Your task to perform on an android device: turn pop-ups on in chrome Image 0: 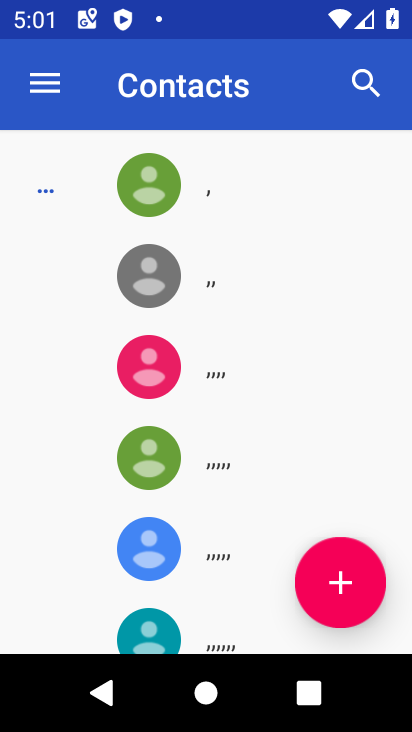
Step 0: press home button
Your task to perform on an android device: turn pop-ups on in chrome Image 1: 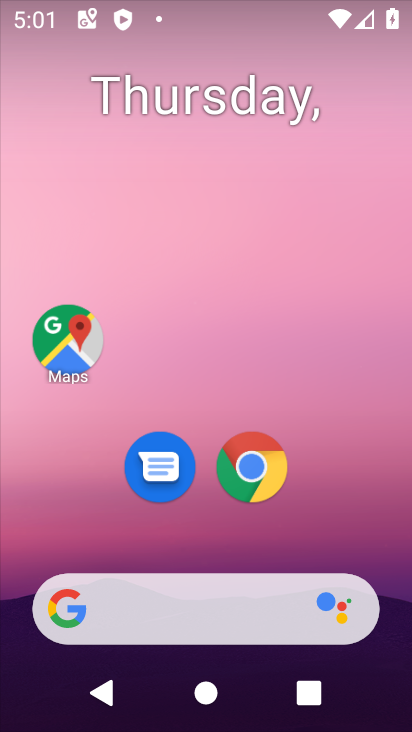
Step 1: drag from (393, 520) to (358, 114)
Your task to perform on an android device: turn pop-ups on in chrome Image 2: 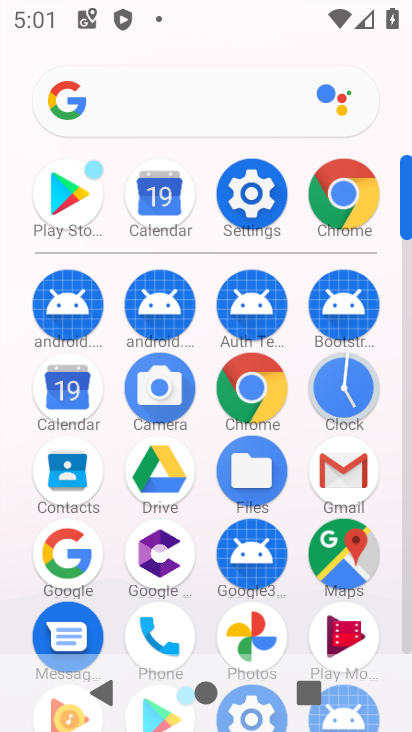
Step 2: click (359, 221)
Your task to perform on an android device: turn pop-ups on in chrome Image 3: 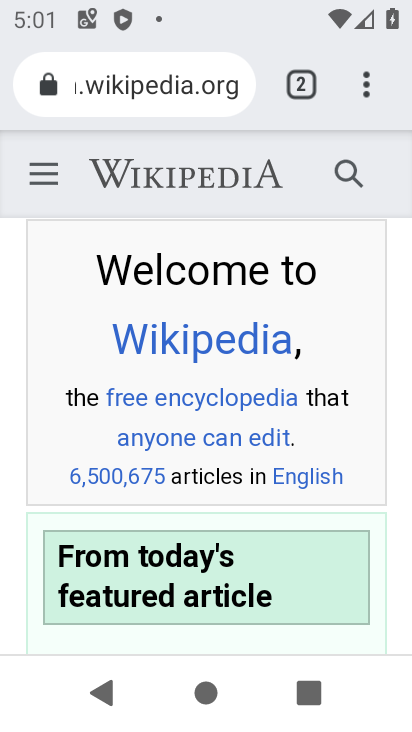
Step 3: click (367, 108)
Your task to perform on an android device: turn pop-ups on in chrome Image 4: 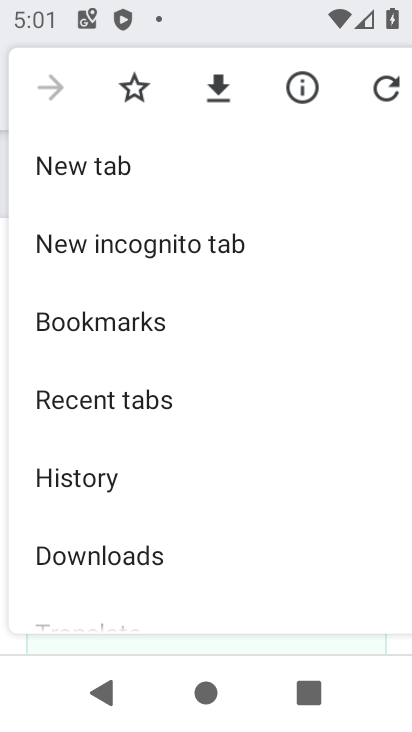
Step 4: drag from (263, 627) to (242, 254)
Your task to perform on an android device: turn pop-ups on in chrome Image 5: 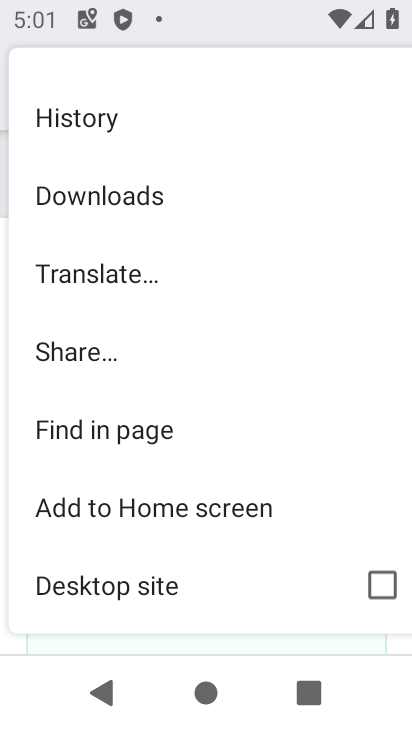
Step 5: drag from (188, 545) to (208, 74)
Your task to perform on an android device: turn pop-ups on in chrome Image 6: 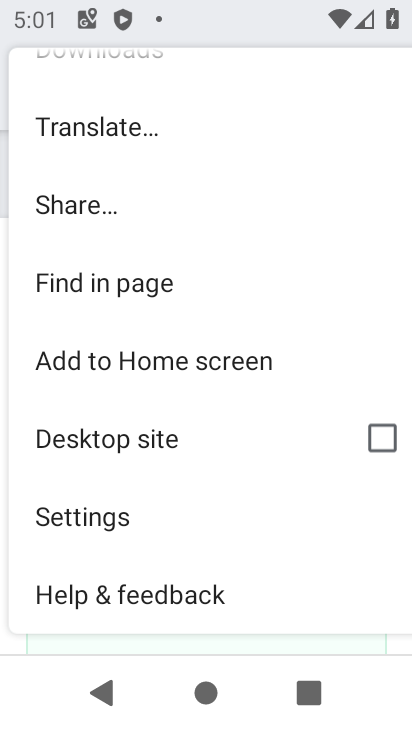
Step 6: click (170, 520)
Your task to perform on an android device: turn pop-ups on in chrome Image 7: 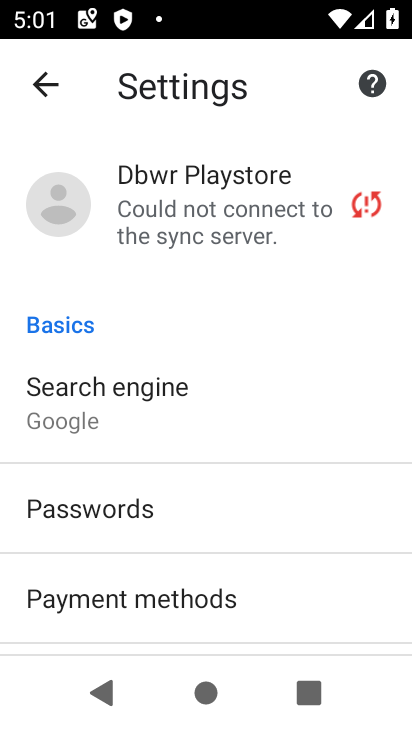
Step 7: drag from (257, 623) to (251, 166)
Your task to perform on an android device: turn pop-ups on in chrome Image 8: 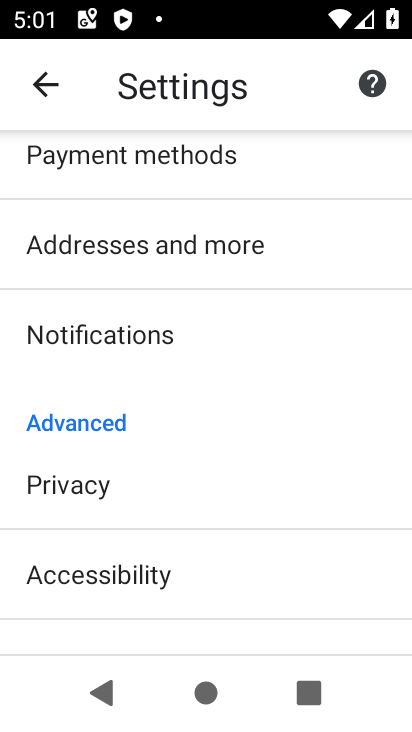
Step 8: drag from (260, 618) to (250, 380)
Your task to perform on an android device: turn pop-ups on in chrome Image 9: 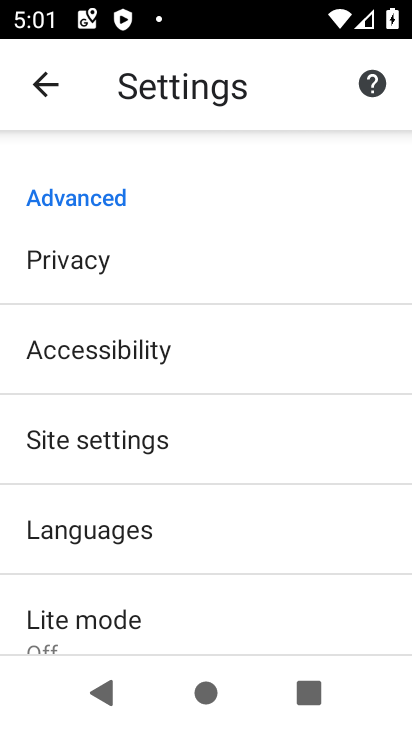
Step 9: click (285, 441)
Your task to perform on an android device: turn pop-ups on in chrome Image 10: 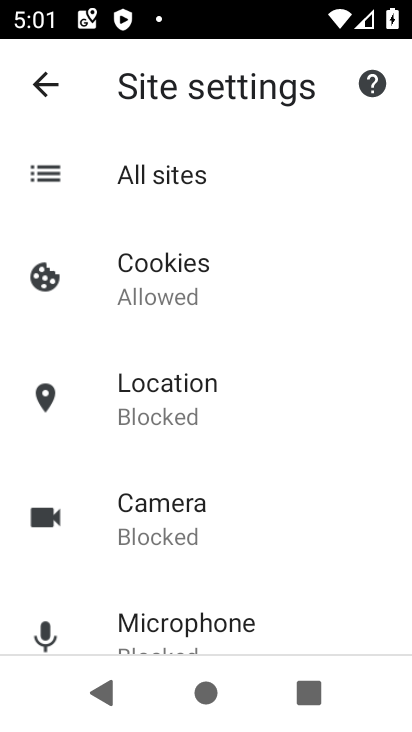
Step 10: drag from (304, 599) to (313, 210)
Your task to perform on an android device: turn pop-ups on in chrome Image 11: 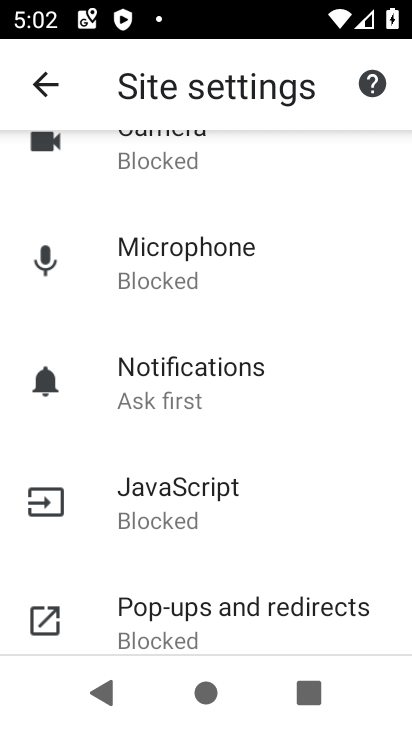
Step 11: click (311, 619)
Your task to perform on an android device: turn pop-ups on in chrome Image 12: 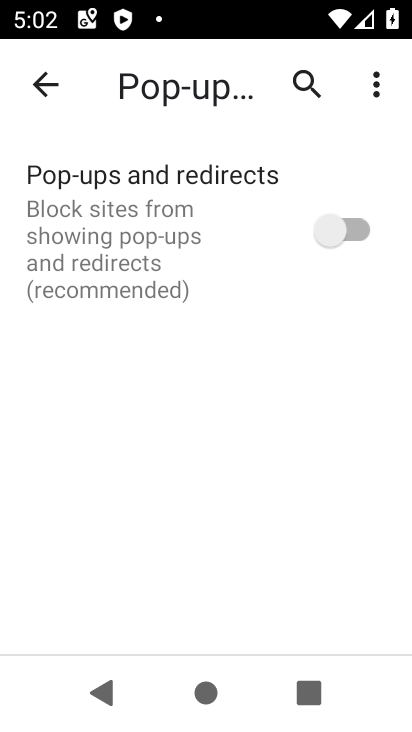
Step 12: click (358, 215)
Your task to perform on an android device: turn pop-ups on in chrome Image 13: 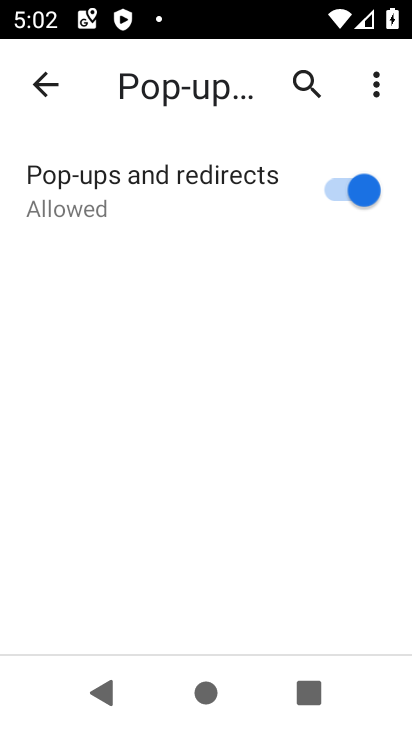
Step 13: task complete